Your task to perform on an android device: Go to display settings Image 0: 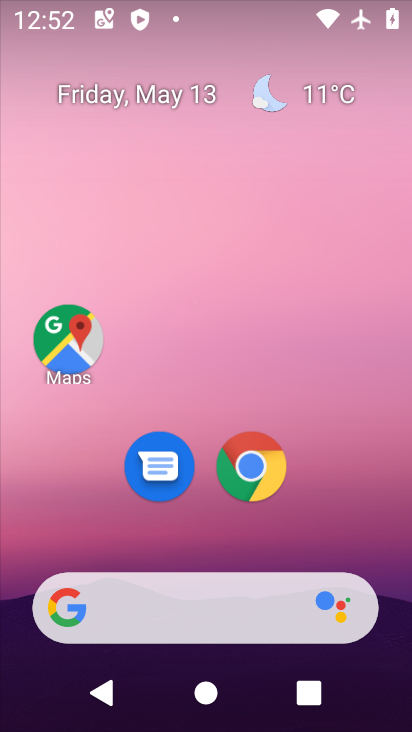
Step 0: drag from (287, 535) to (305, 33)
Your task to perform on an android device: Go to display settings Image 1: 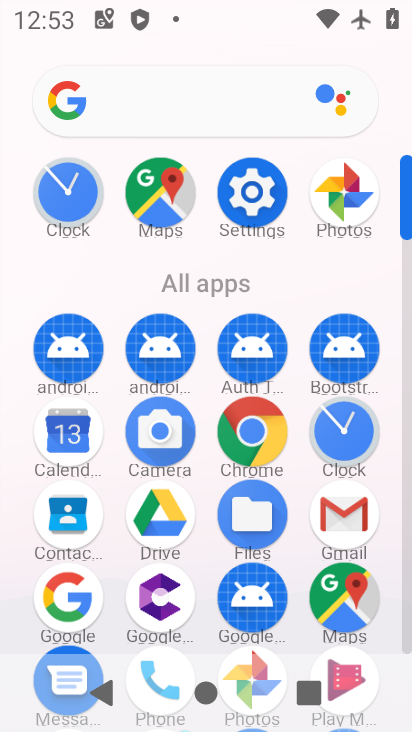
Step 1: click (250, 201)
Your task to perform on an android device: Go to display settings Image 2: 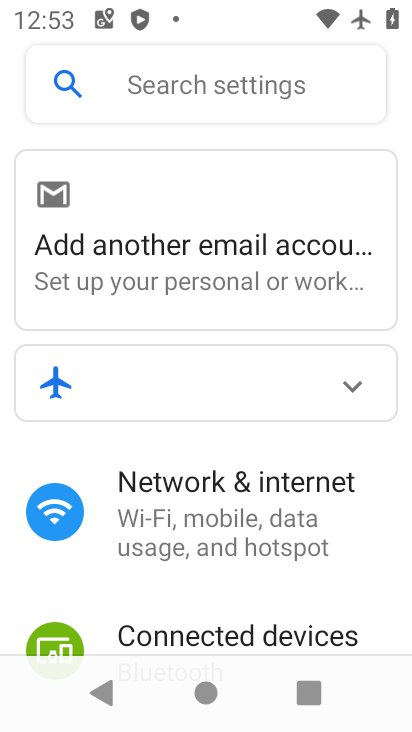
Step 2: drag from (159, 534) to (162, 178)
Your task to perform on an android device: Go to display settings Image 3: 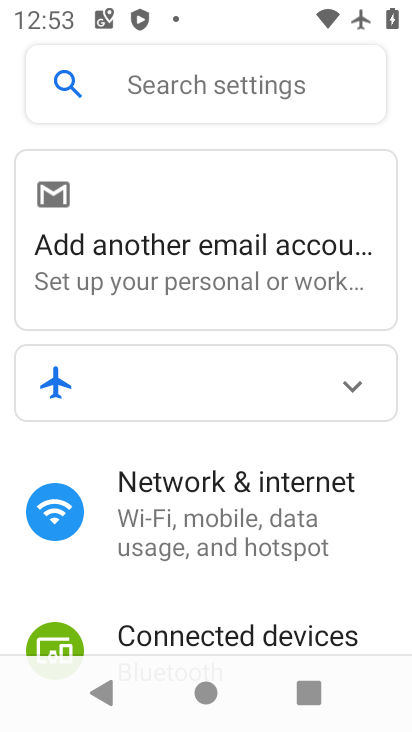
Step 3: drag from (238, 517) to (214, 186)
Your task to perform on an android device: Go to display settings Image 4: 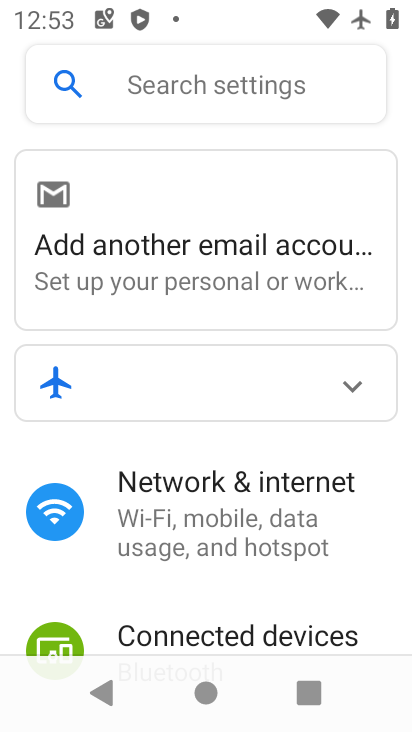
Step 4: drag from (188, 486) to (174, 227)
Your task to perform on an android device: Go to display settings Image 5: 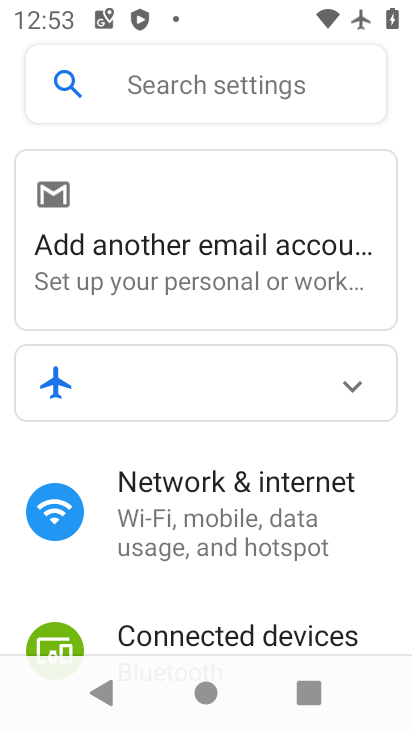
Step 5: drag from (92, 475) to (107, 189)
Your task to perform on an android device: Go to display settings Image 6: 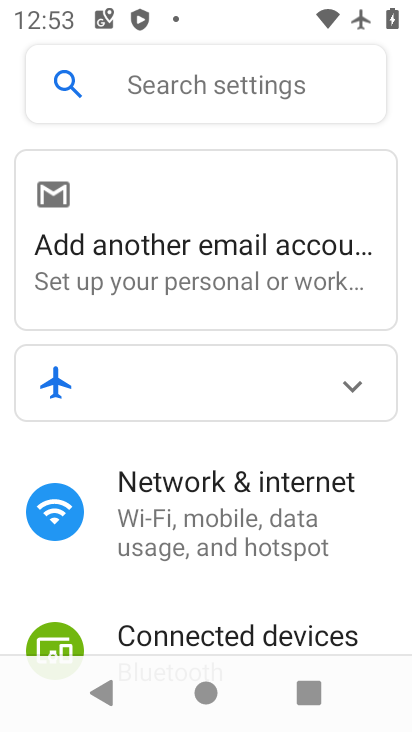
Step 6: drag from (75, 521) to (174, 89)
Your task to perform on an android device: Go to display settings Image 7: 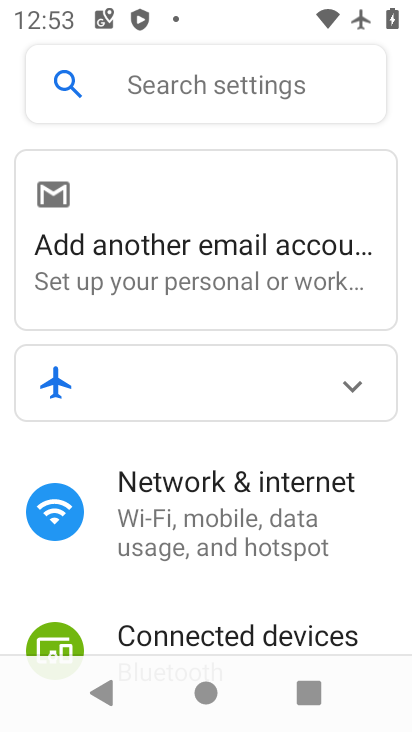
Step 7: drag from (243, 506) to (245, 99)
Your task to perform on an android device: Go to display settings Image 8: 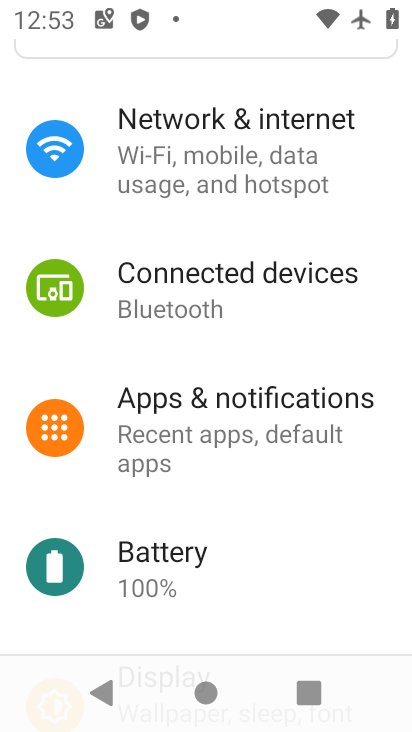
Step 8: drag from (160, 504) to (198, 131)
Your task to perform on an android device: Go to display settings Image 9: 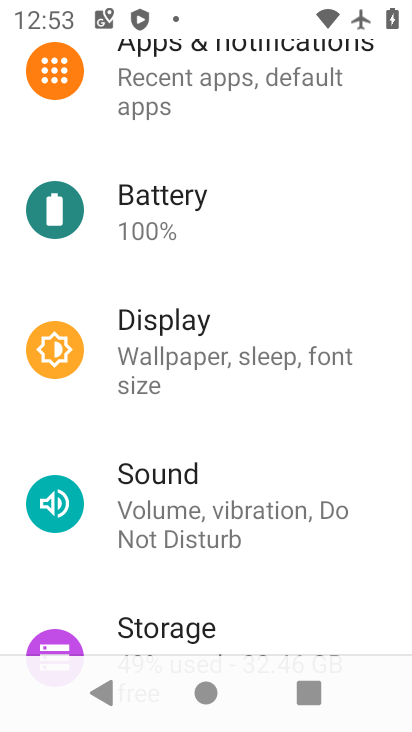
Step 9: click (173, 345)
Your task to perform on an android device: Go to display settings Image 10: 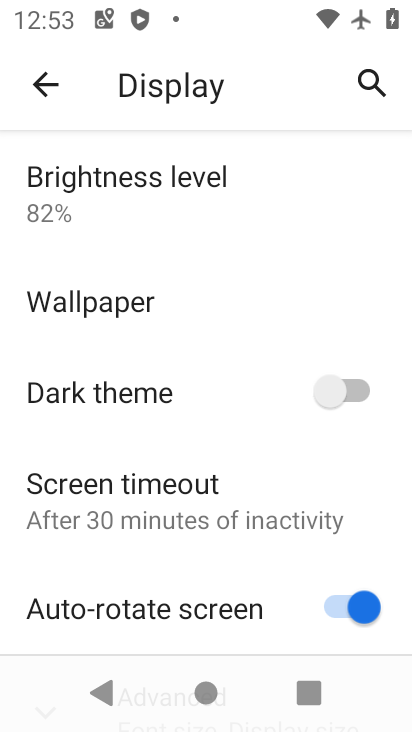
Step 10: task complete